Your task to perform on an android device: open app "Pandora - Music & Podcasts" Image 0: 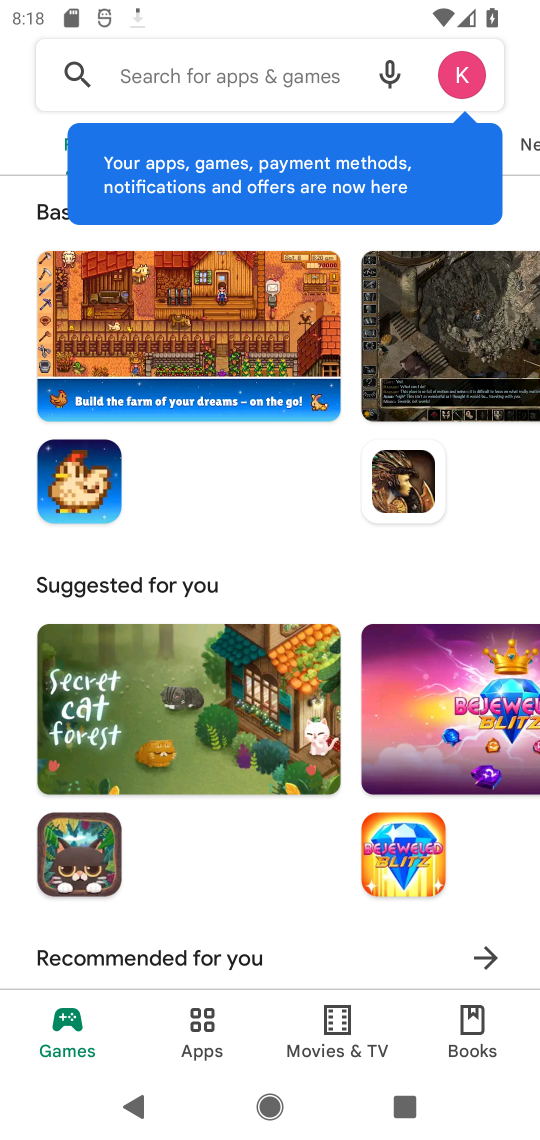
Step 0: click (298, 74)
Your task to perform on an android device: open app "Pandora - Music & Podcasts" Image 1: 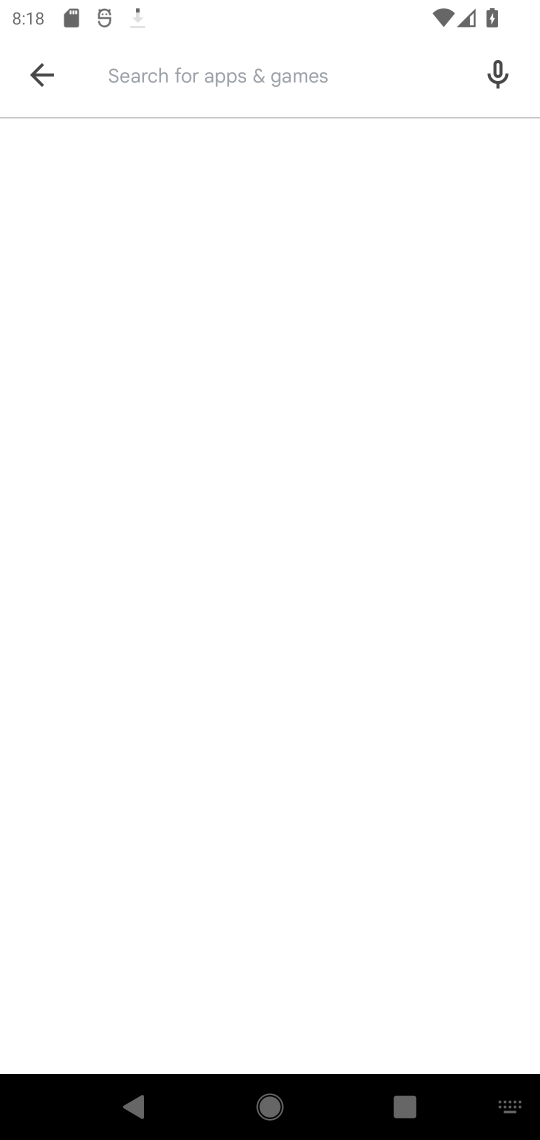
Step 1: type "Pandora - Music & Podcasts"
Your task to perform on an android device: open app "Pandora - Music & Podcasts" Image 2: 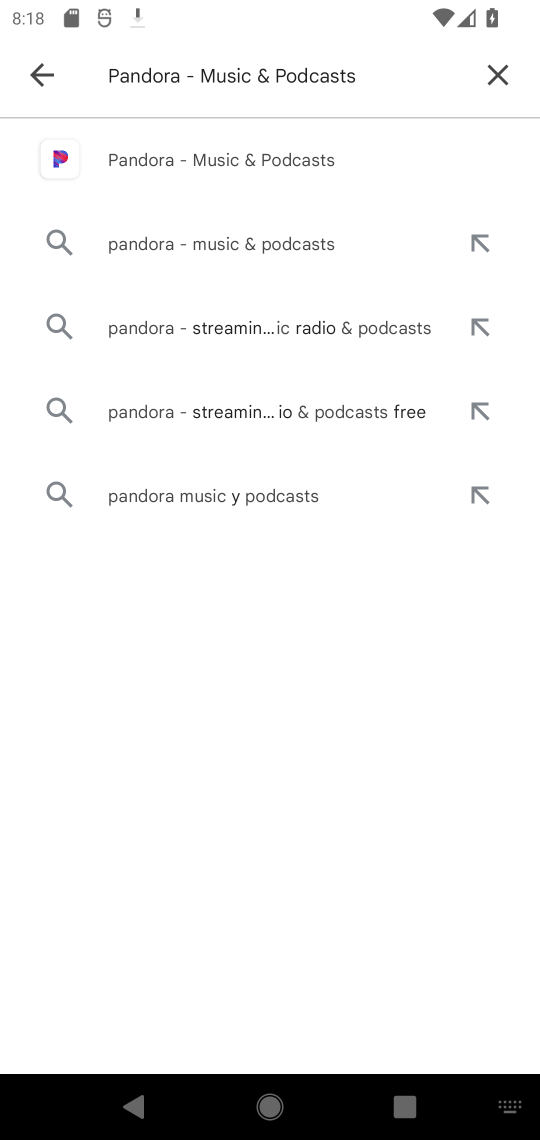
Step 2: click (305, 165)
Your task to perform on an android device: open app "Pandora - Music & Podcasts" Image 3: 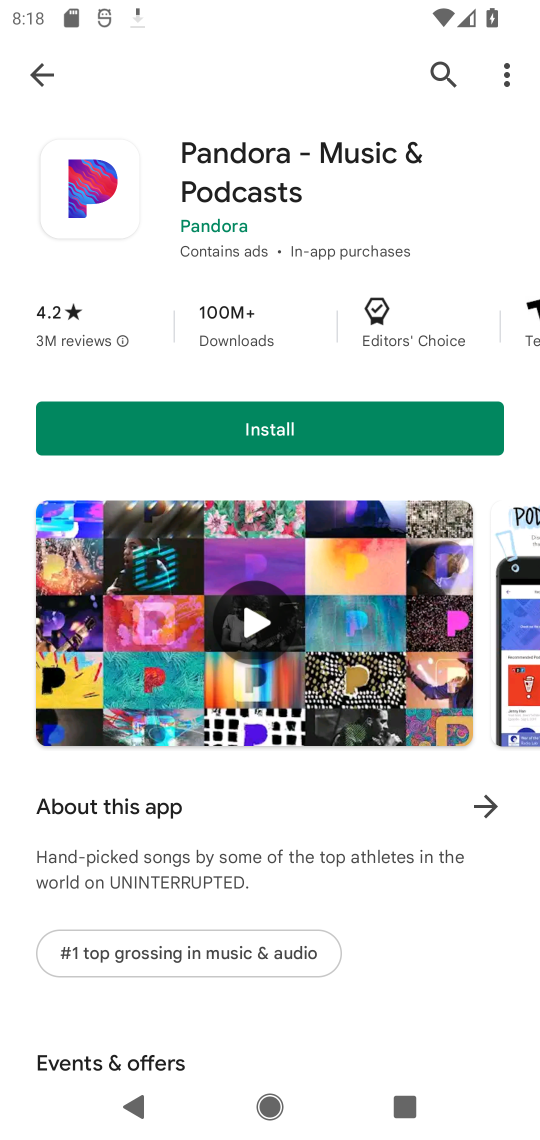
Step 3: task complete